Your task to perform on an android device: find photos in the google photos app Image 0: 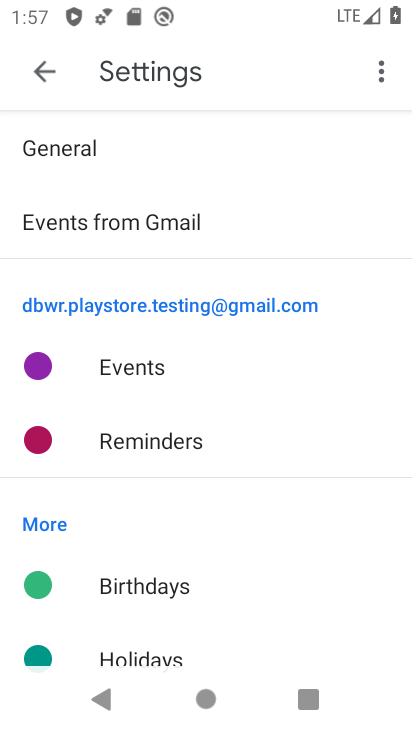
Step 0: press home button
Your task to perform on an android device: find photos in the google photos app Image 1: 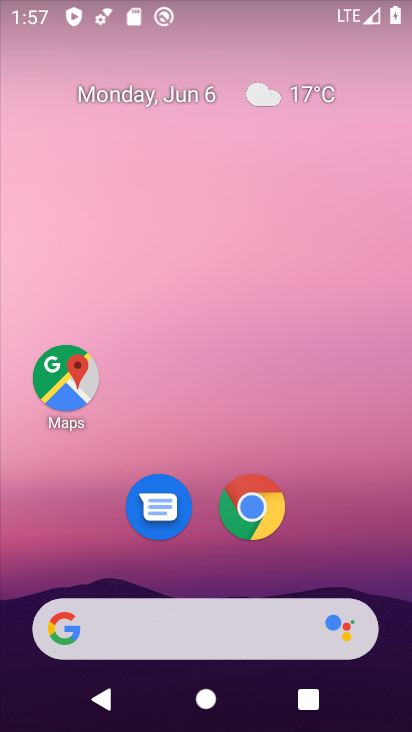
Step 1: drag from (396, 577) to (299, 186)
Your task to perform on an android device: find photos in the google photos app Image 2: 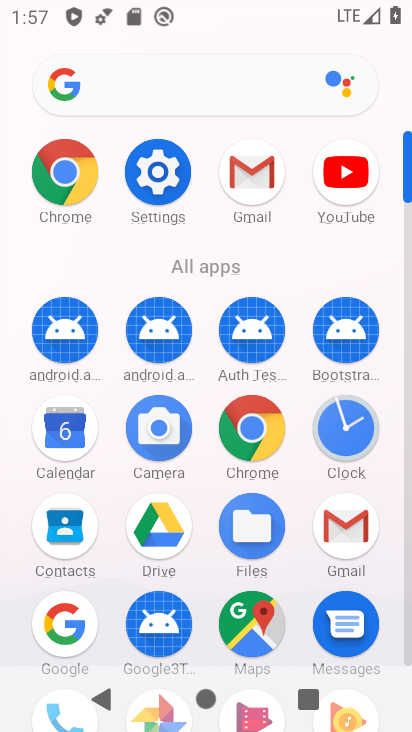
Step 2: click (407, 660)
Your task to perform on an android device: find photos in the google photos app Image 3: 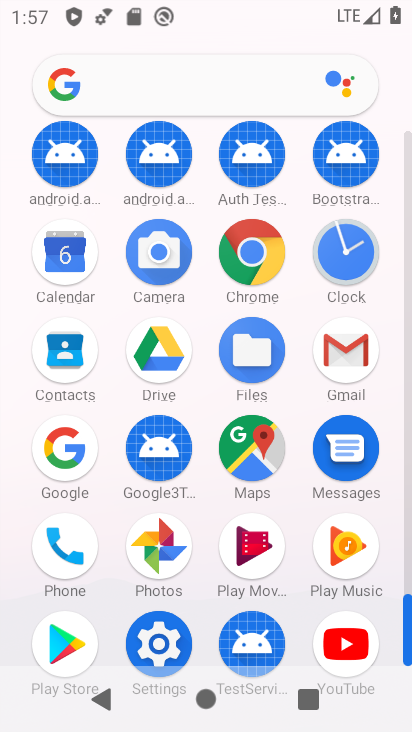
Step 3: click (178, 556)
Your task to perform on an android device: find photos in the google photos app Image 4: 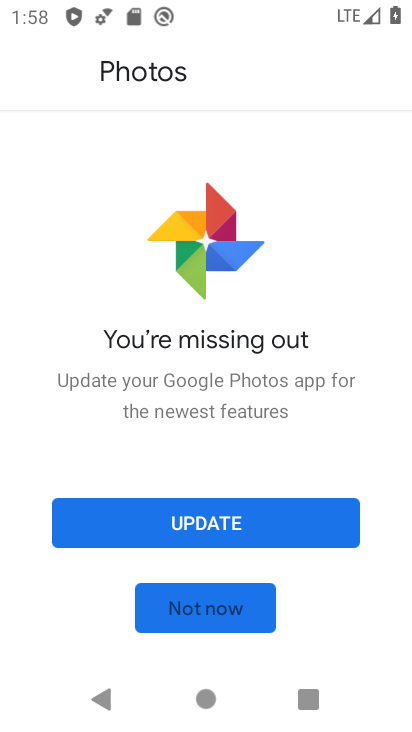
Step 4: click (239, 520)
Your task to perform on an android device: find photos in the google photos app Image 5: 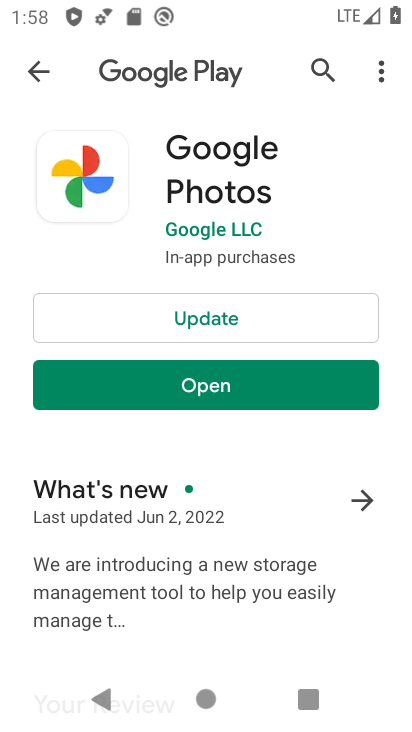
Step 5: click (234, 329)
Your task to perform on an android device: find photos in the google photos app Image 6: 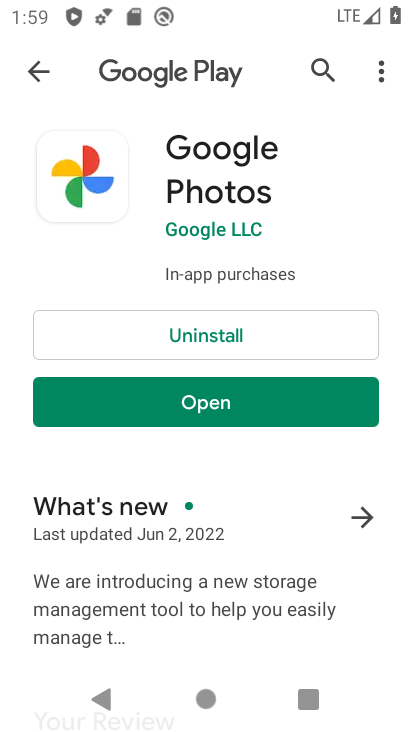
Step 6: click (335, 396)
Your task to perform on an android device: find photos in the google photos app Image 7: 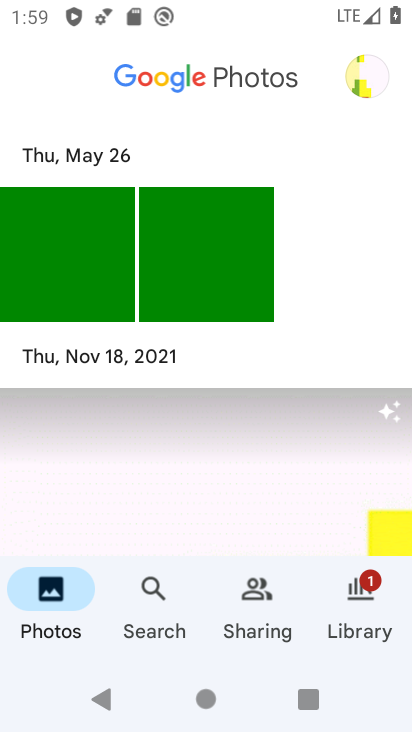
Step 7: task complete